Your task to perform on an android device: What's the weather going to be tomorrow? Image 0: 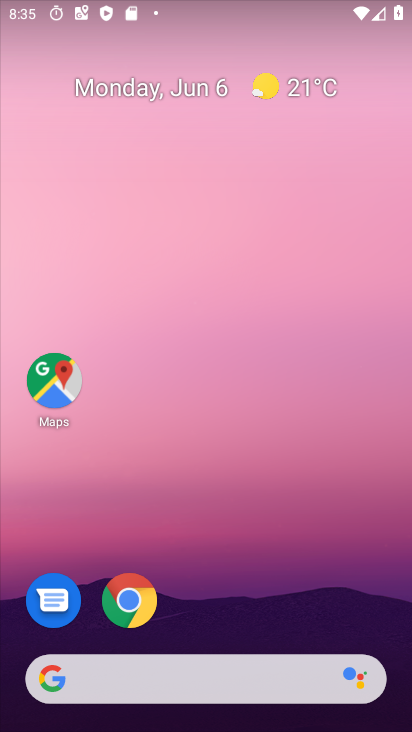
Step 0: drag from (243, 562) to (200, 33)
Your task to perform on an android device: What's the weather going to be tomorrow? Image 1: 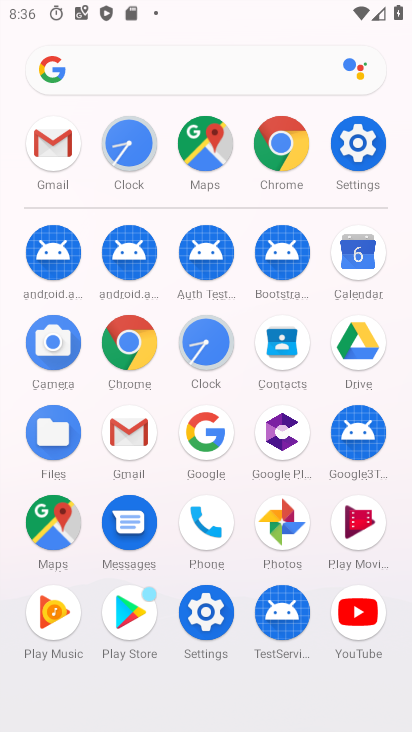
Step 1: drag from (8, 505) to (15, 251)
Your task to perform on an android device: What's the weather going to be tomorrow? Image 2: 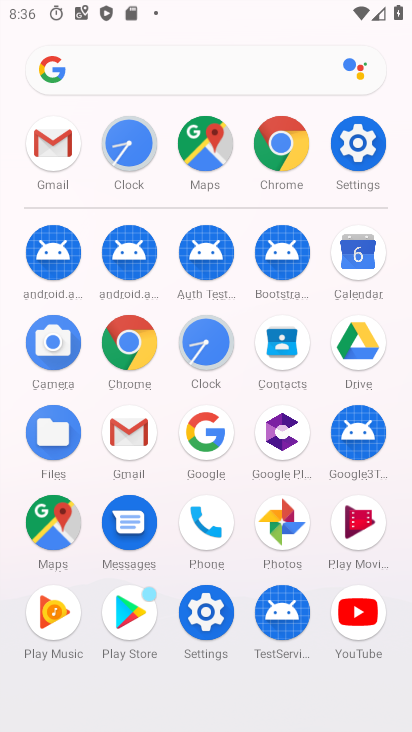
Step 2: click (126, 336)
Your task to perform on an android device: What's the weather going to be tomorrow? Image 3: 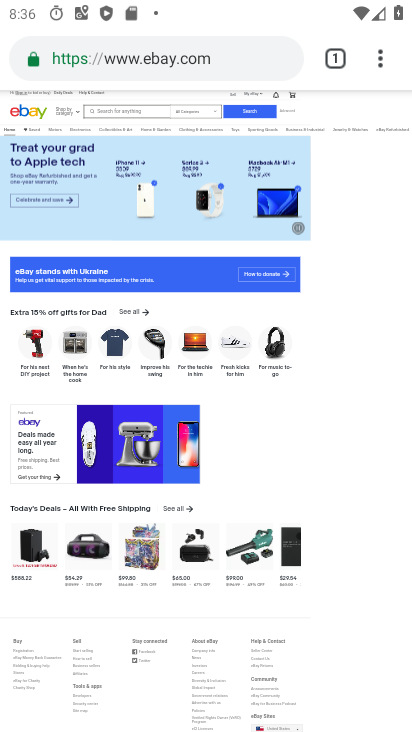
Step 3: click (199, 53)
Your task to perform on an android device: What's the weather going to be tomorrow? Image 4: 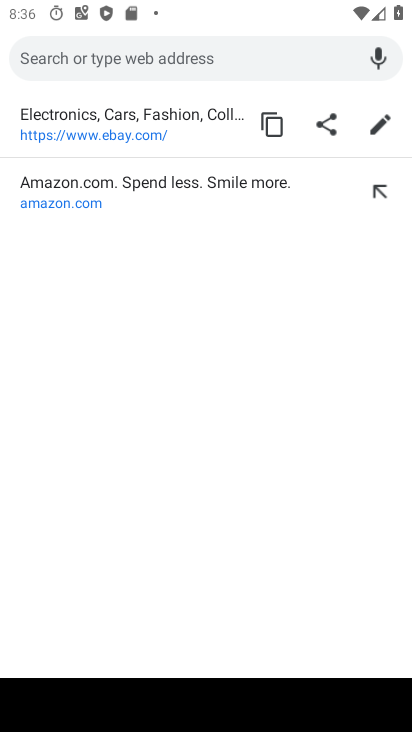
Step 4: type "What's the weather going to be tomorrow?"
Your task to perform on an android device: What's the weather going to be tomorrow? Image 5: 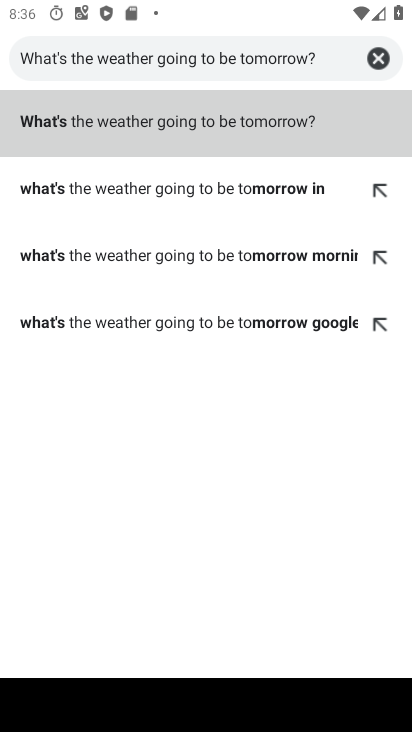
Step 5: click (194, 135)
Your task to perform on an android device: What's the weather going to be tomorrow? Image 6: 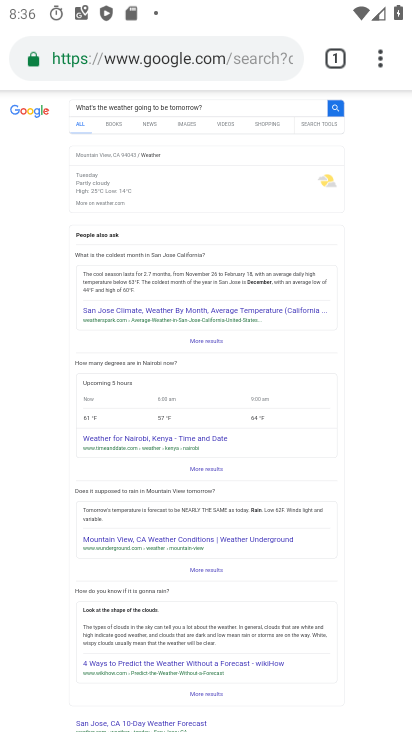
Step 6: task complete